Your task to perform on an android device: toggle show notifications on the lock screen Image 0: 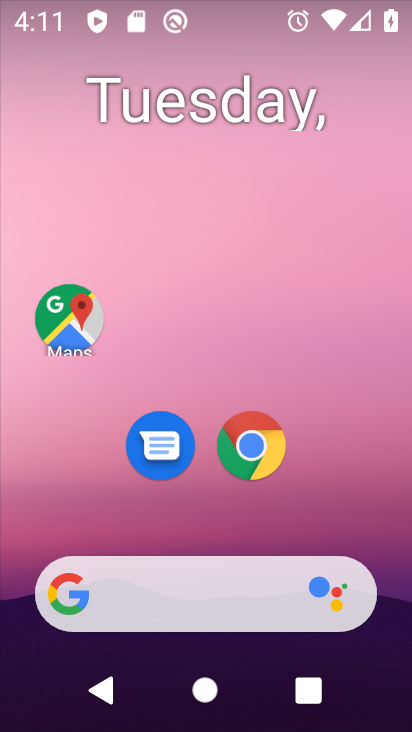
Step 0: drag from (388, 567) to (379, 175)
Your task to perform on an android device: toggle show notifications on the lock screen Image 1: 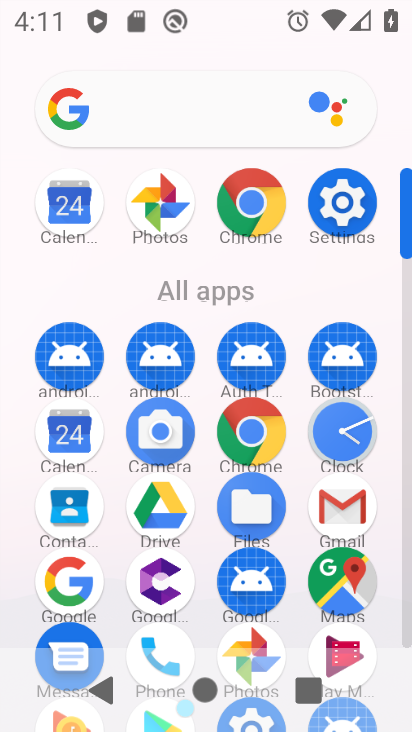
Step 1: click (352, 224)
Your task to perform on an android device: toggle show notifications on the lock screen Image 2: 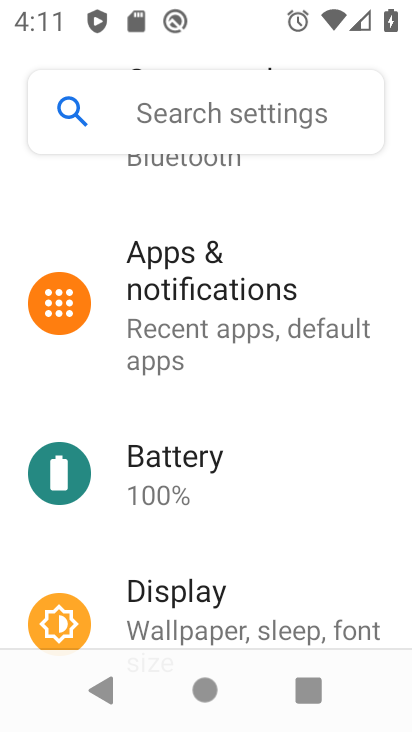
Step 2: click (261, 333)
Your task to perform on an android device: toggle show notifications on the lock screen Image 3: 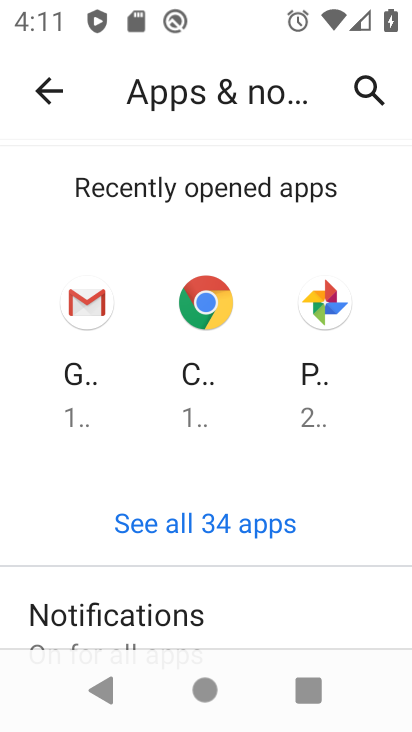
Step 3: drag from (288, 588) to (306, 345)
Your task to perform on an android device: toggle show notifications on the lock screen Image 4: 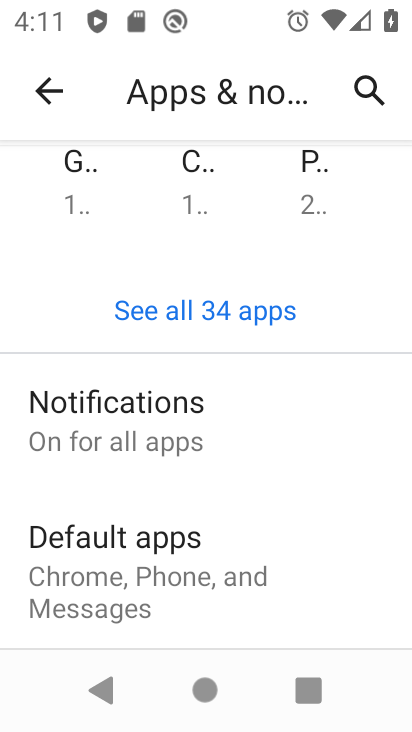
Step 4: click (157, 424)
Your task to perform on an android device: toggle show notifications on the lock screen Image 5: 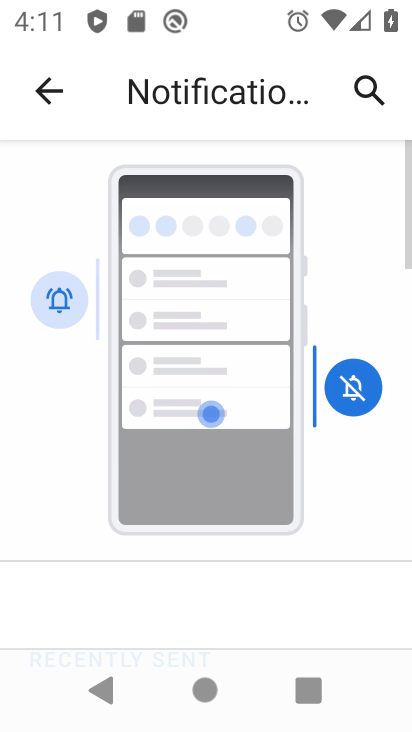
Step 5: drag from (235, 560) to (290, 199)
Your task to perform on an android device: toggle show notifications on the lock screen Image 6: 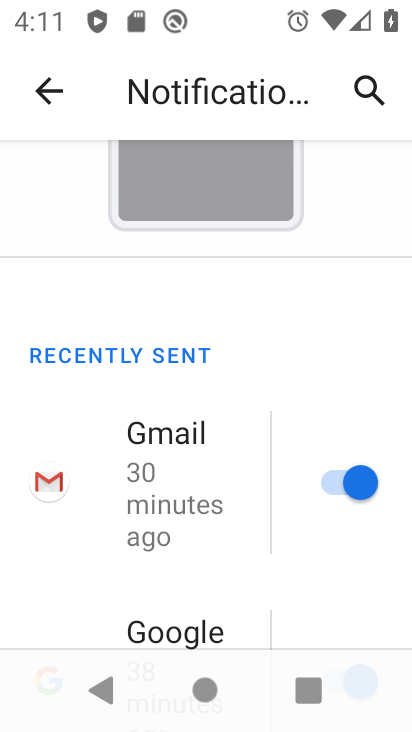
Step 6: drag from (298, 615) to (391, 218)
Your task to perform on an android device: toggle show notifications on the lock screen Image 7: 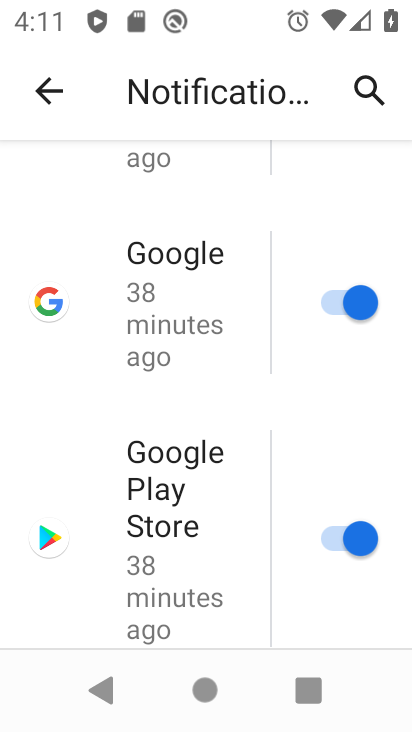
Step 7: drag from (277, 643) to (357, 156)
Your task to perform on an android device: toggle show notifications on the lock screen Image 8: 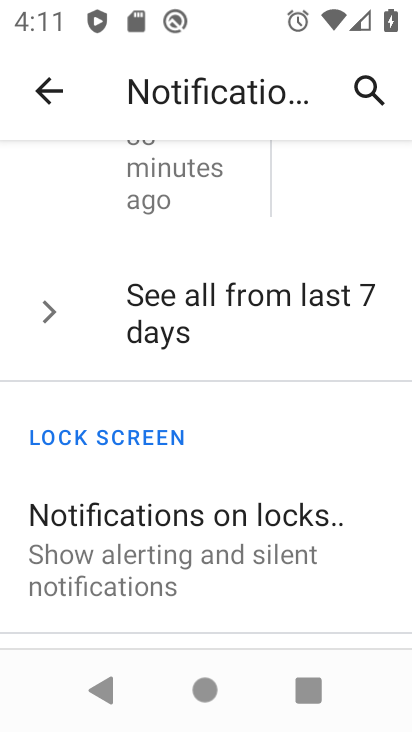
Step 8: click (286, 507)
Your task to perform on an android device: toggle show notifications on the lock screen Image 9: 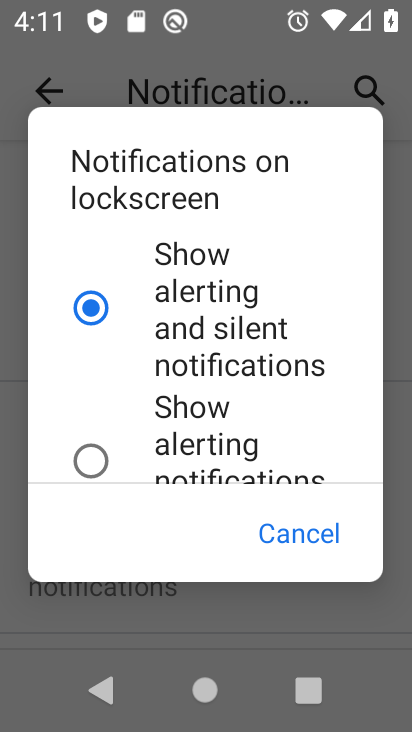
Step 9: drag from (236, 453) to (252, 258)
Your task to perform on an android device: toggle show notifications on the lock screen Image 10: 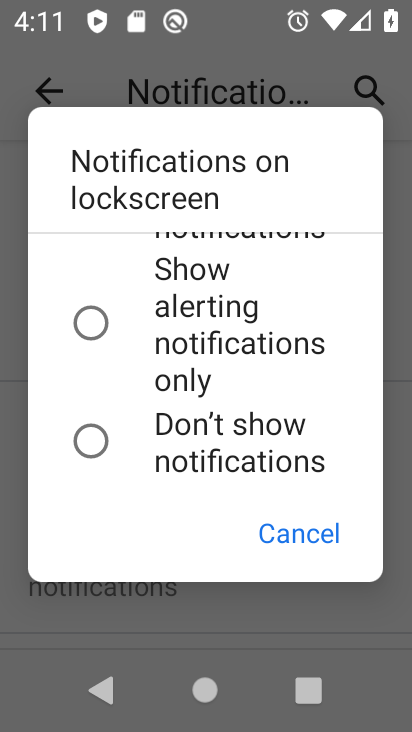
Step 10: click (268, 449)
Your task to perform on an android device: toggle show notifications on the lock screen Image 11: 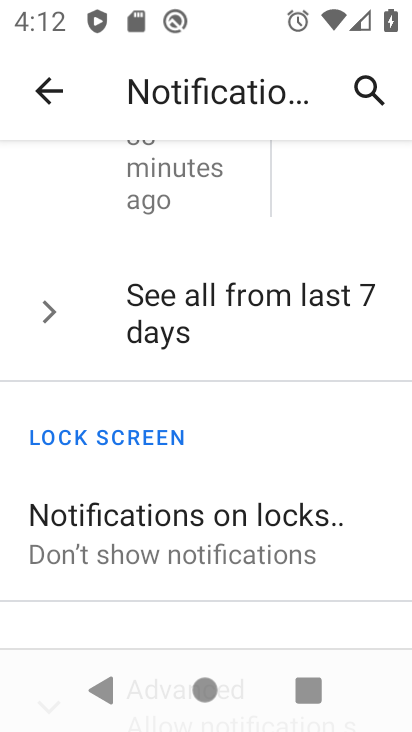
Step 11: task complete